Your task to perform on an android device: What's the weather going to be this weekend? Image 0: 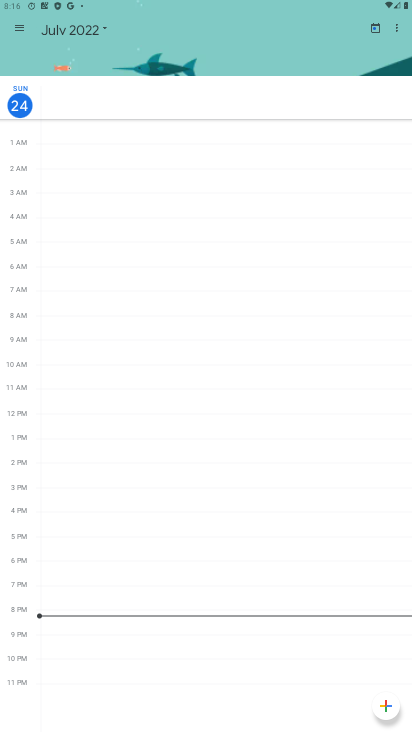
Step 0: press home button
Your task to perform on an android device: What's the weather going to be this weekend? Image 1: 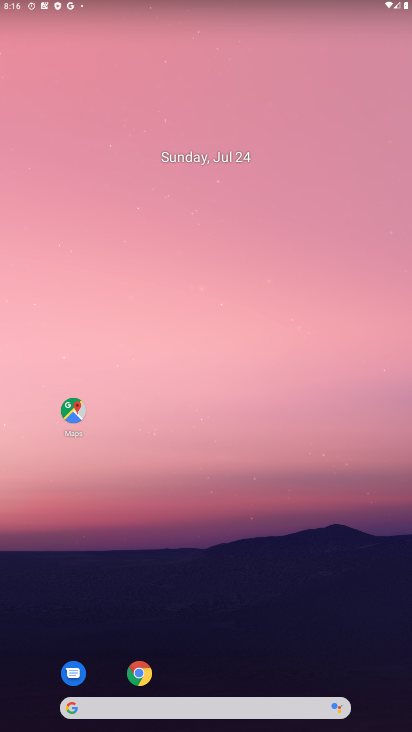
Step 1: click (117, 711)
Your task to perform on an android device: What's the weather going to be this weekend? Image 2: 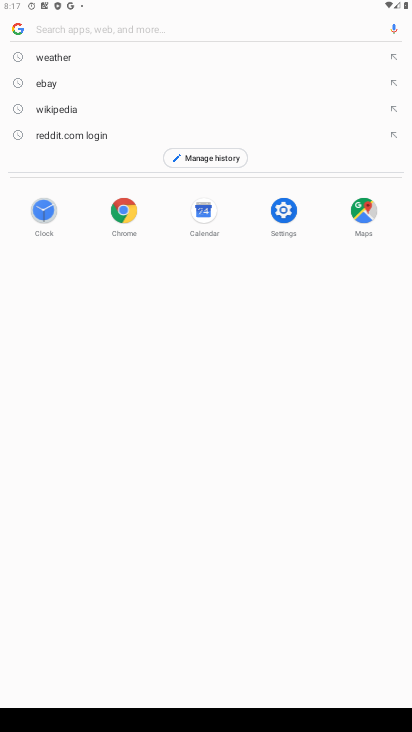
Step 2: type "What's the weather going to be this weekend?"
Your task to perform on an android device: What's the weather going to be this weekend? Image 3: 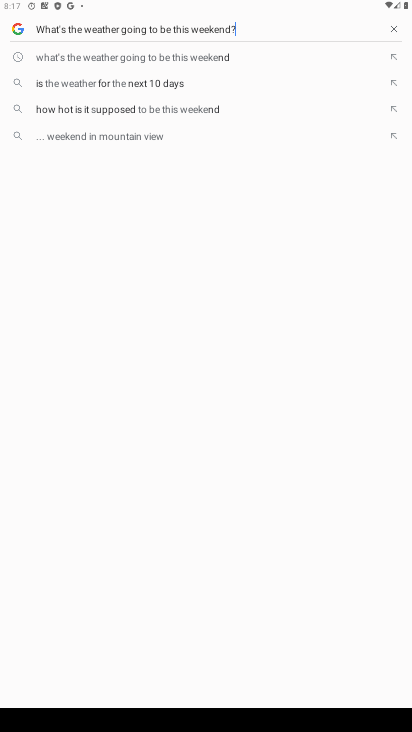
Step 3: type ""
Your task to perform on an android device: What's the weather going to be this weekend? Image 4: 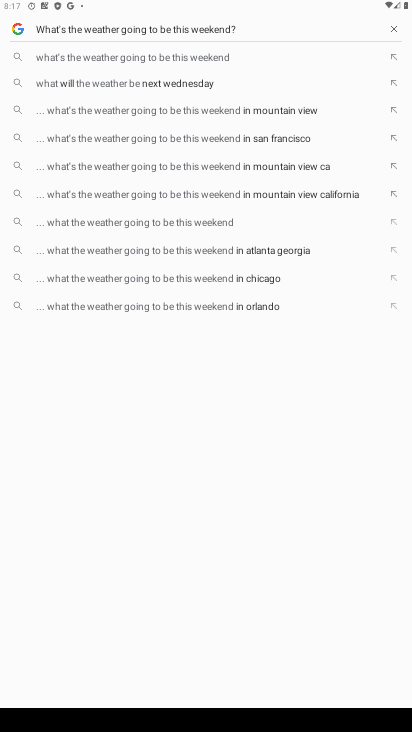
Step 4: click (158, 49)
Your task to perform on an android device: What's the weather going to be this weekend? Image 5: 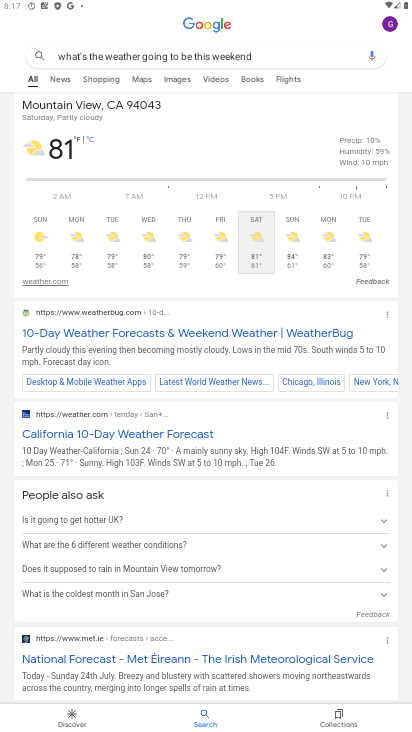
Step 5: task complete